Your task to perform on an android device: Empty the shopping cart on ebay. Add "logitech g pro" to the cart on ebay, then select checkout. Image 0: 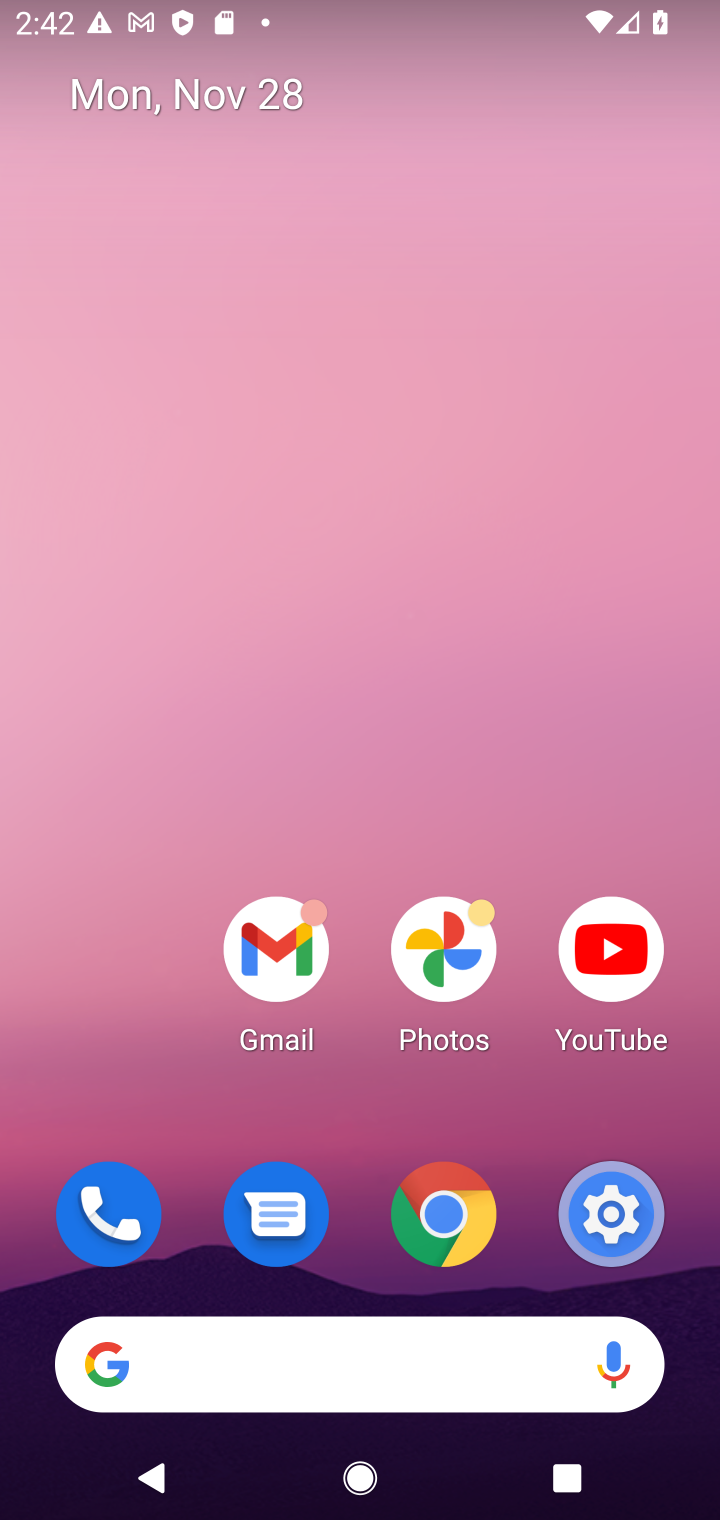
Step 0: click (423, 1345)
Your task to perform on an android device: Empty the shopping cart on ebay. Add "logitech g pro" to the cart on ebay, then select checkout. Image 1: 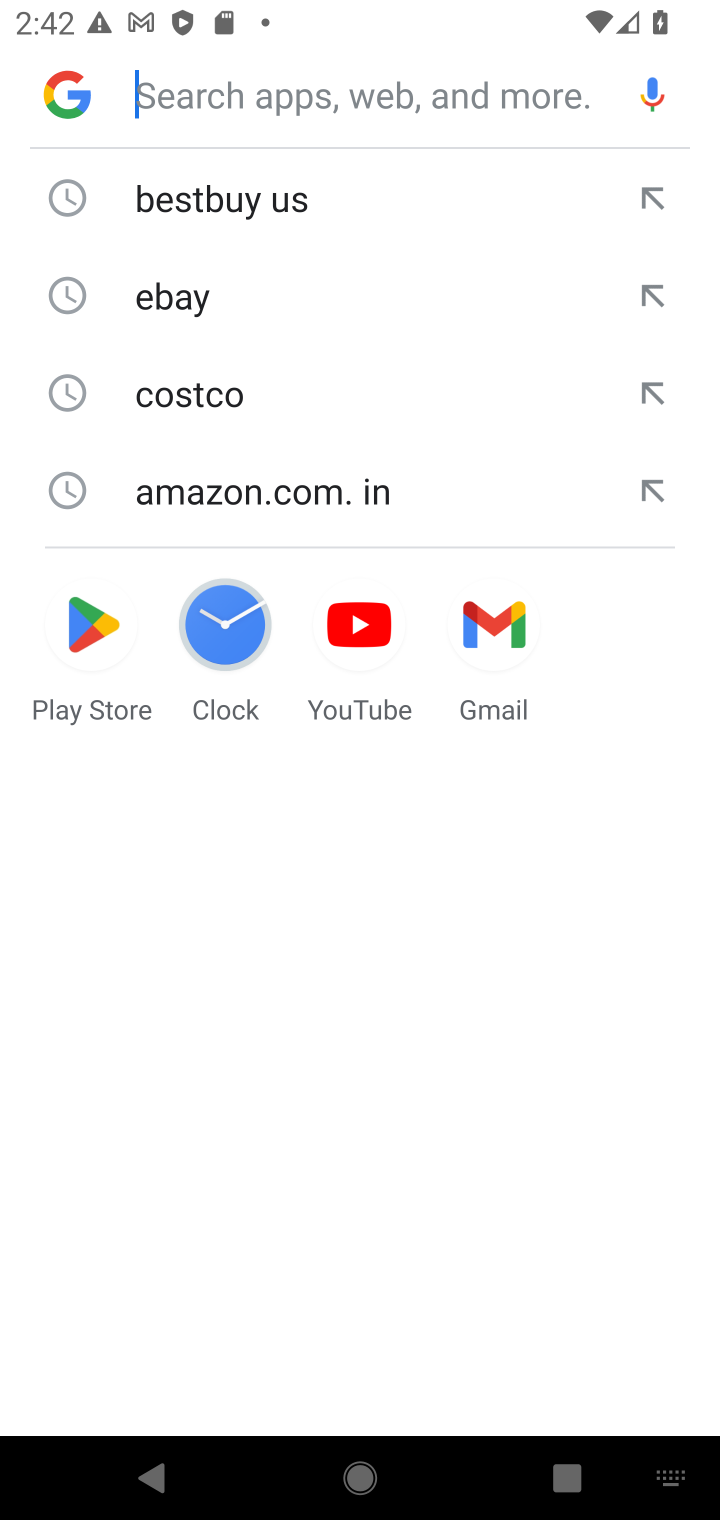
Step 1: task complete